Your task to perform on an android device: Go to battery settings Image 0: 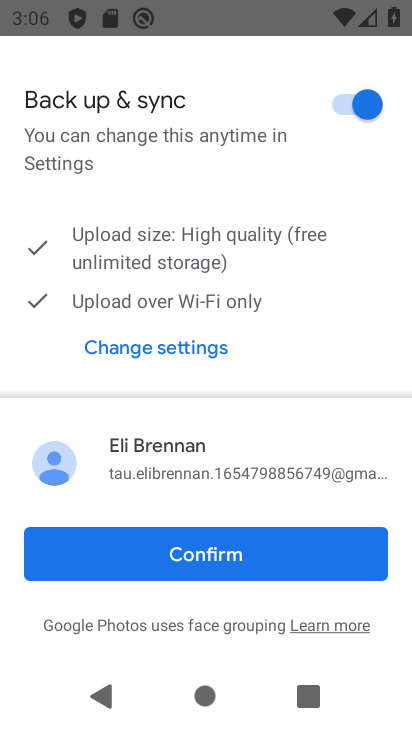
Step 0: press back button
Your task to perform on an android device: Go to battery settings Image 1: 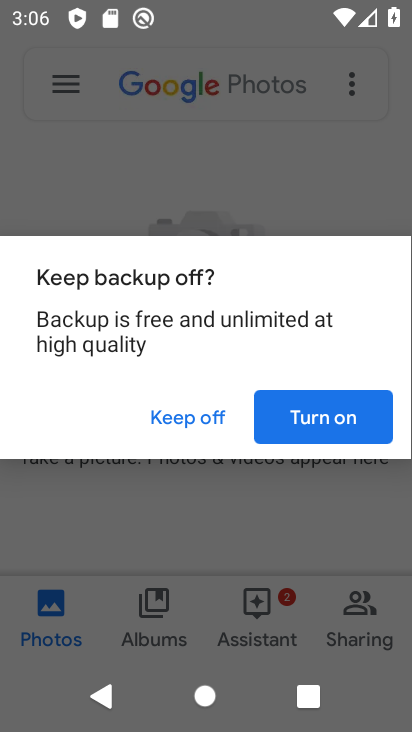
Step 1: press back button
Your task to perform on an android device: Go to battery settings Image 2: 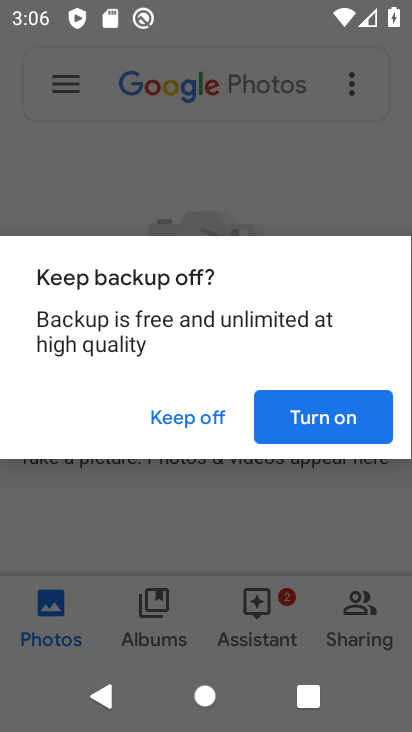
Step 2: press home button
Your task to perform on an android device: Go to battery settings Image 3: 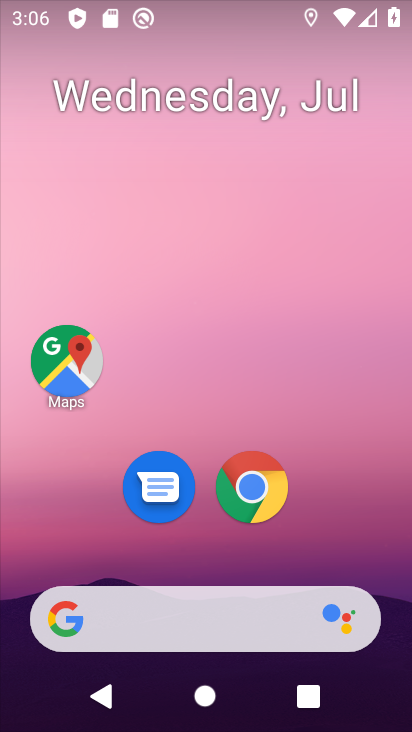
Step 3: drag from (207, 533) to (259, 3)
Your task to perform on an android device: Go to battery settings Image 4: 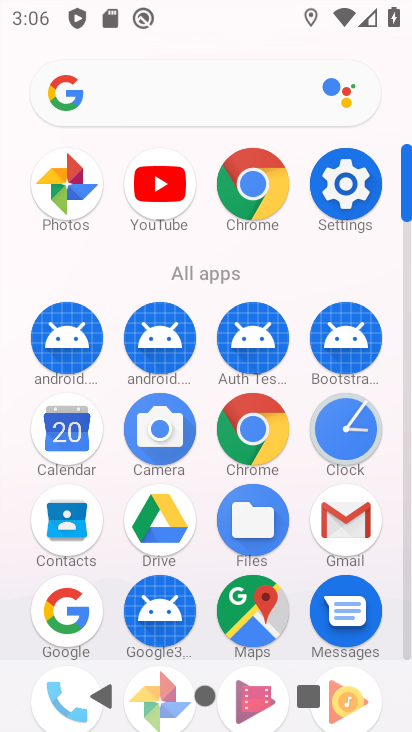
Step 4: click (357, 193)
Your task to perform on an android device: Go to battery settings Image 5: 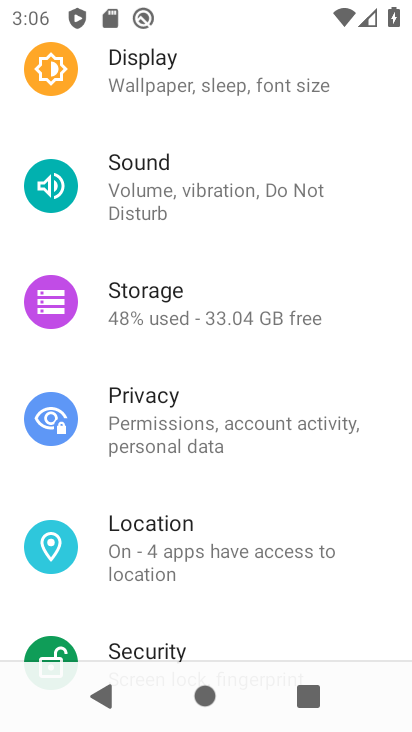
Step 5: drag from (235, 159) to (216, 548)
Your task to perform on an android device: Go to battery settings Image 6: 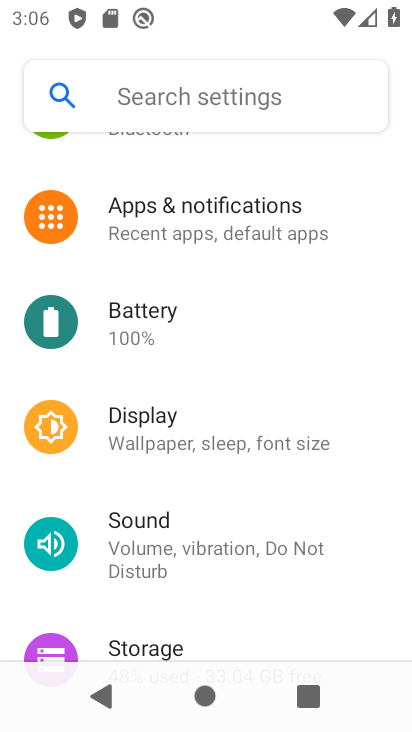
Step 6: click (167, 329)
Your task to perform on an android device: Go to battery settings Image 7: 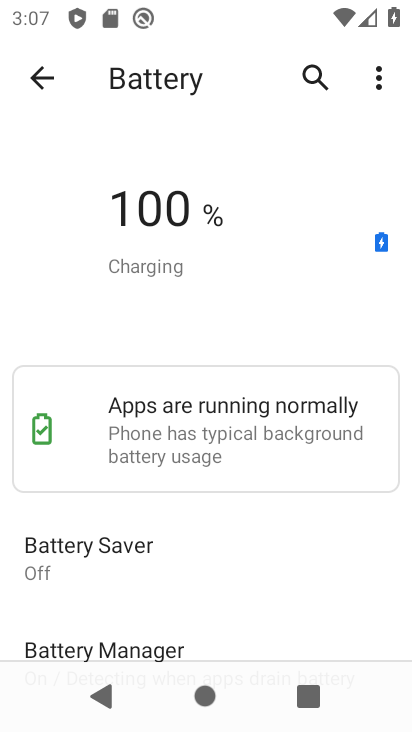
Step 7: task complete